Your task to perform on an android device: What's on my calendar today? Image 0: 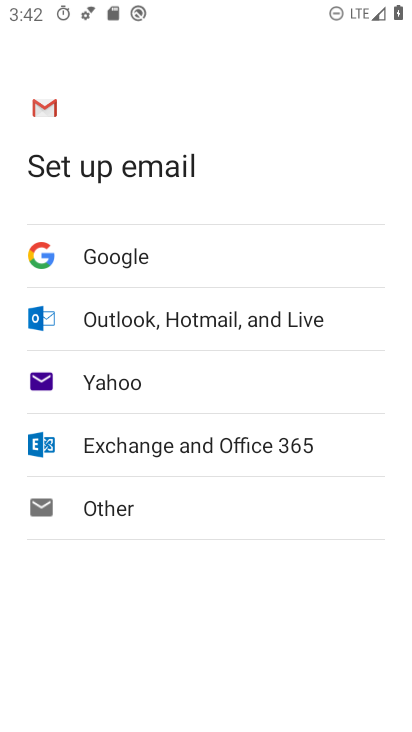
Step 0: press home button
Your task to perform on an android device: What's on my calendar today? Image 1: 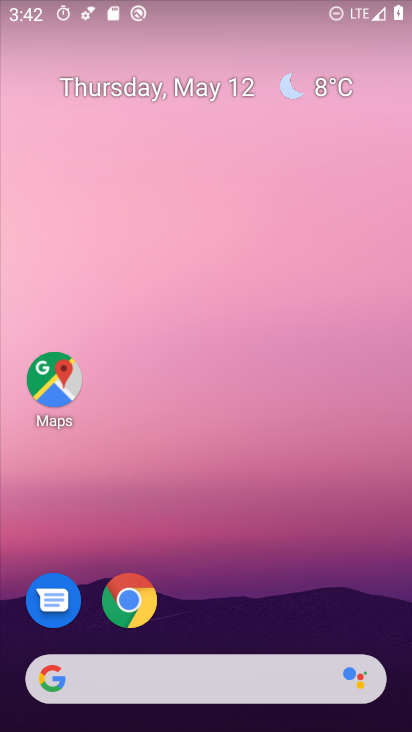
Step 1: drag from (216, 723) to (217, 253)
Your task to perform on an android device: What's on my calendar today? Image 2: 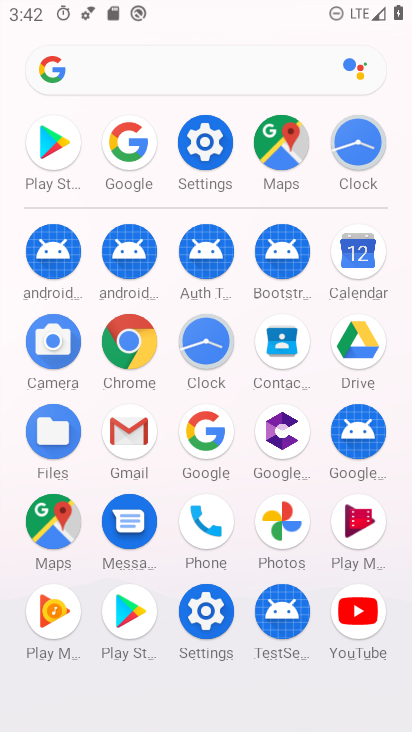
Step 2: click (361, 254)
Your task to perform on an android device: What's on my calendar today? Image 3: 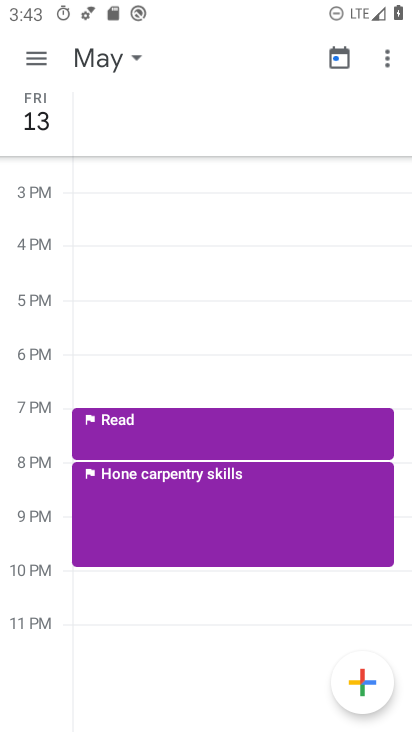
Step 3: click (92, 58)
Your task to perform on an android device: What's on my calendar today? Image 4: 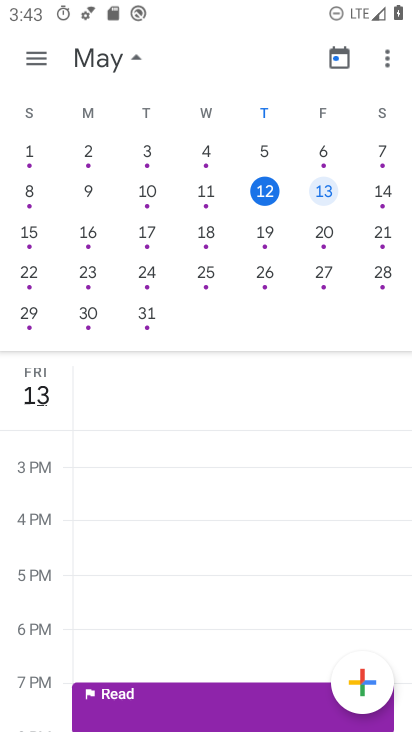
Step 4: click (268, 185)
Your task to perform on an android device: What's on my calendar today? Image 5: 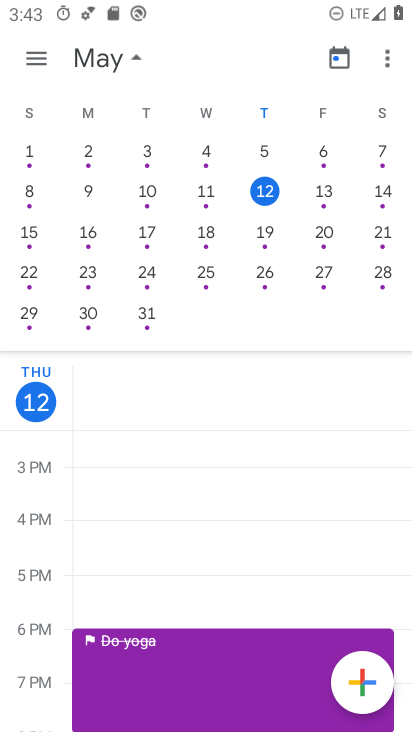
Step 5: click (135, 57)
Your task to perform on an android device: What's on my calendar today? Image 6: 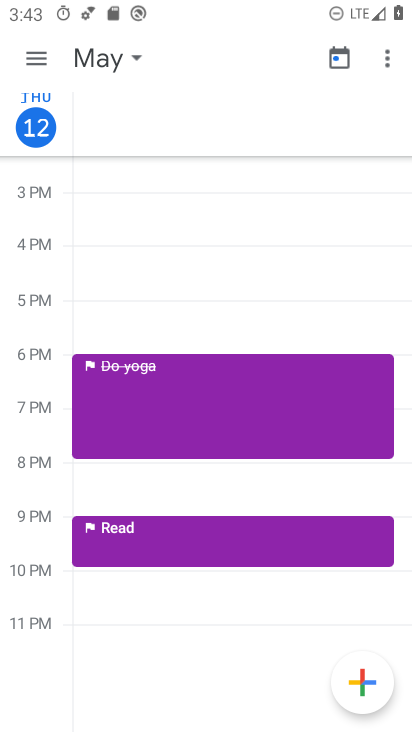
Step 6: task complete